Your task to perform on an android device: open chrome and create a bookmark for the current page Image 0: 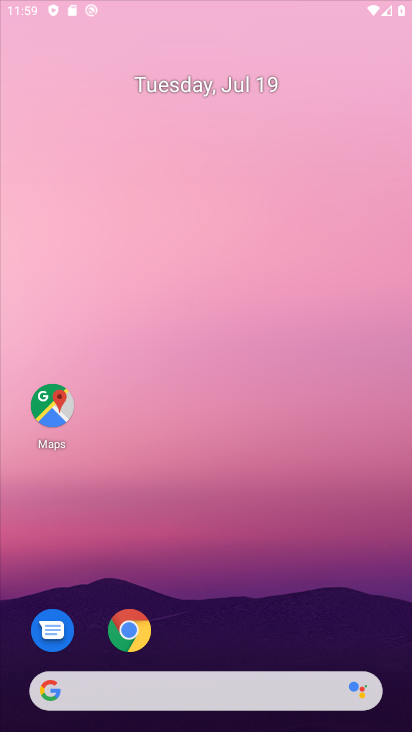
Step 0: press home button
Your task to perform on an android device: open chrome and create a bookmark for the current page Image 1: 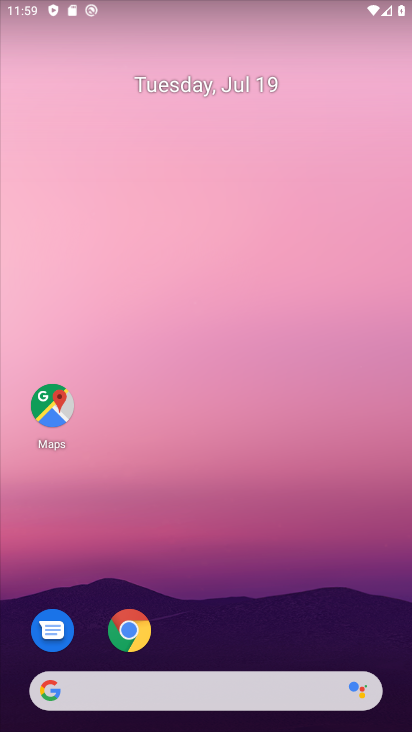
Step 1: click (132, 623)
Your task to perform on an android device: open chrome and create a bookmark for the current page Image 2: 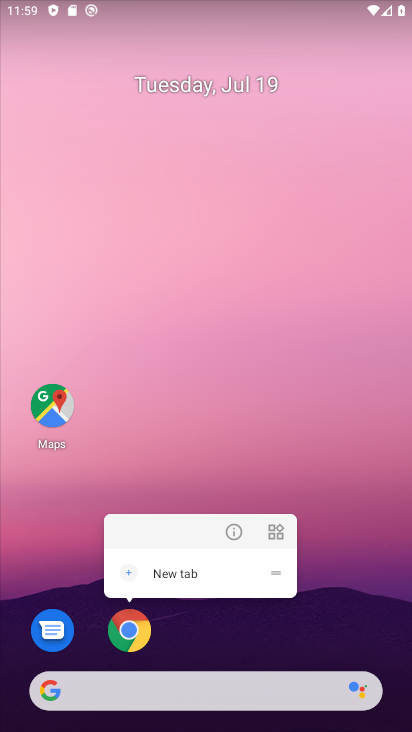
Step 2: click (132, 623)
Your task to perform on an android device: open chrome and create a bookmark for the current page Image 3: 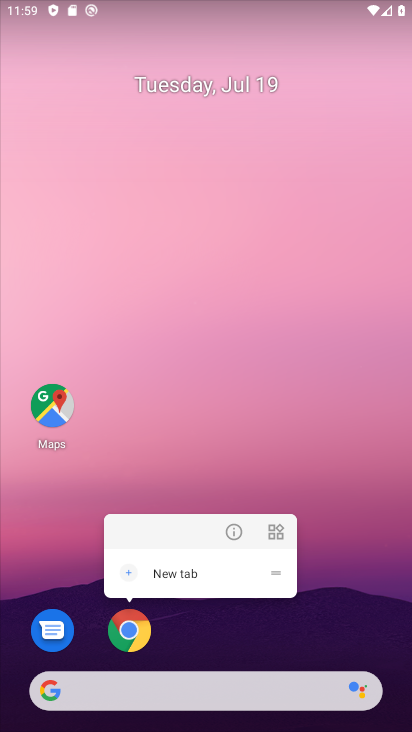
Step 3: click (132, 628)
Your task to perform on an android device: open chrome and create a bookmark for the current page Image 4: 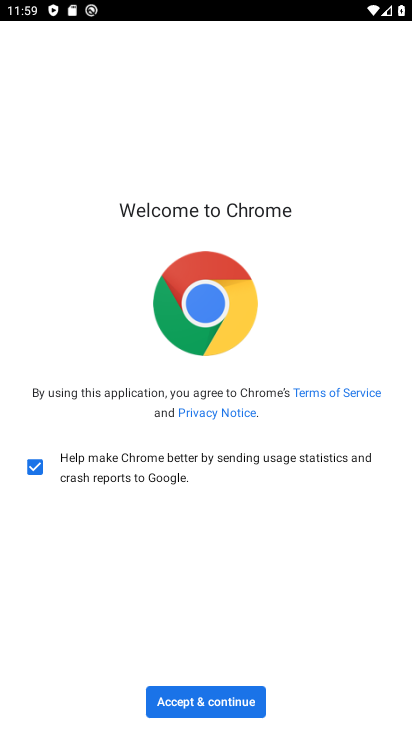
Step 4: click (172, 708)
Your task to perform on an android device: open chrome and create a bookmark for the current page Image 5: 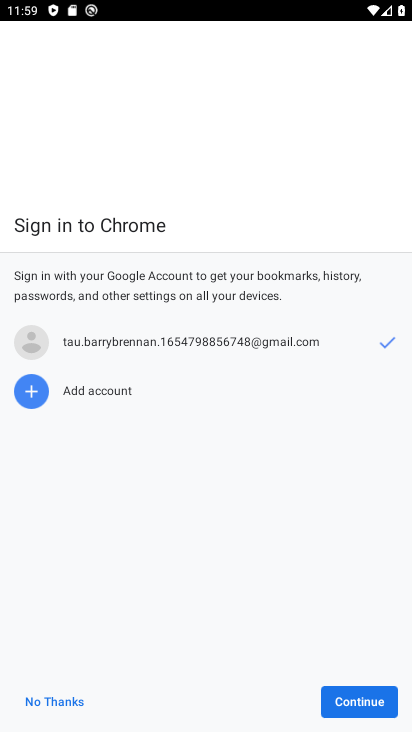
Step 5: click (41, 697)
Your task to perform on an android device: open chrome and create a bookmark for the current page Image 6: 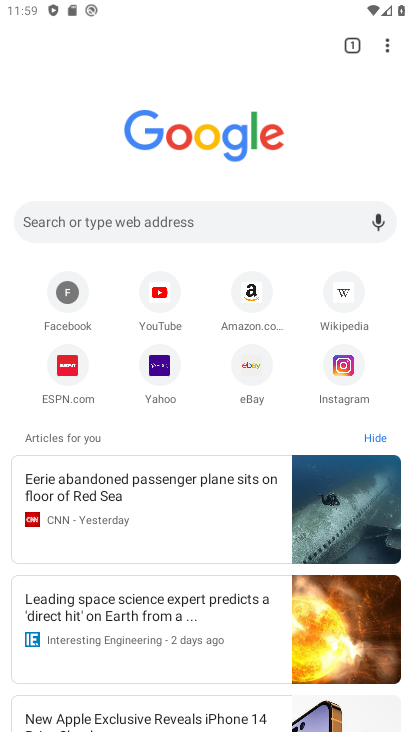
Step 6: click (386, 46)
Your task to perform on an android device: open chrome and create a bookmark for the current page Image 7: 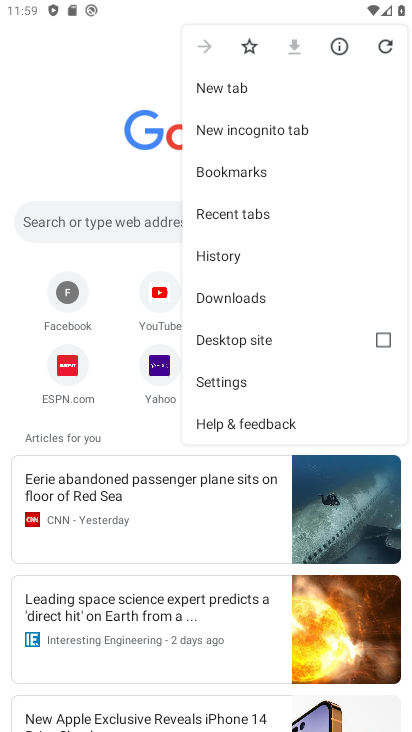
Step 7: click (251, 51)
Your task to perform on an android device: open chrome and create a bookmark for the current page Image 8: 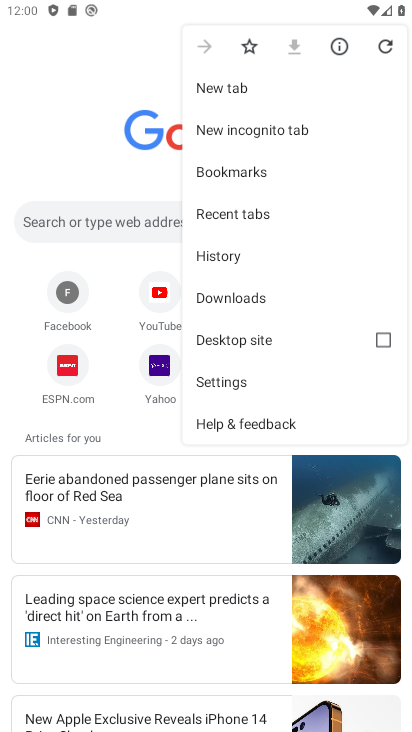
Step 8: click (255, 41)
Your task to perform on an android device: open chrome and create a bookmark for the current page Image 9: 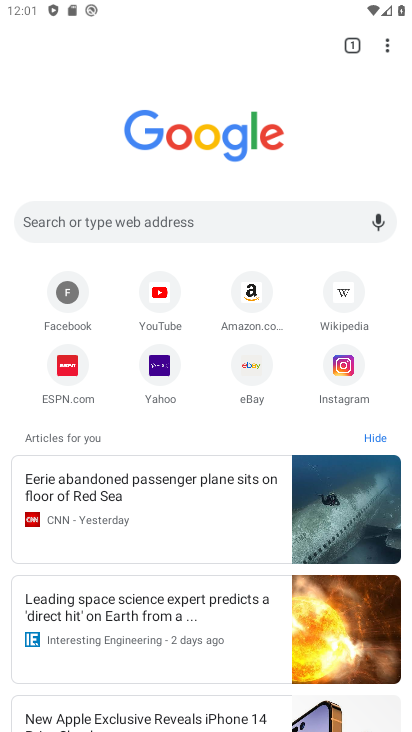
Step 9: click (387, 52)
Your task to perform on an android device: open chrome and create a bookmark for the current page Image 10: 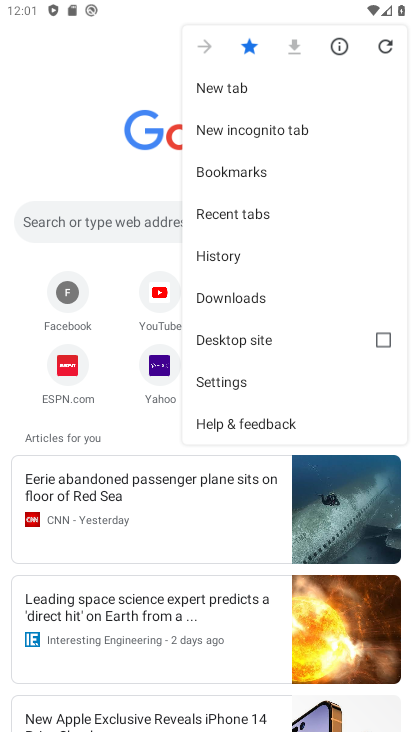
Step 10: task complete